Your task to perform on an android device: check storage Image 0: 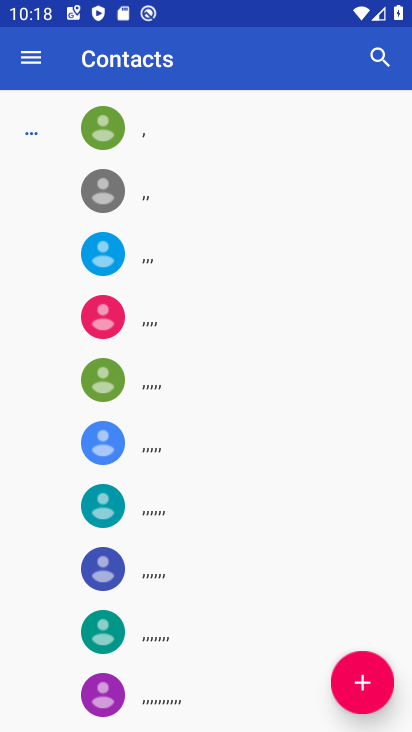
Step 0: press back button
Your task to perform on an android device: check storage Image 1: 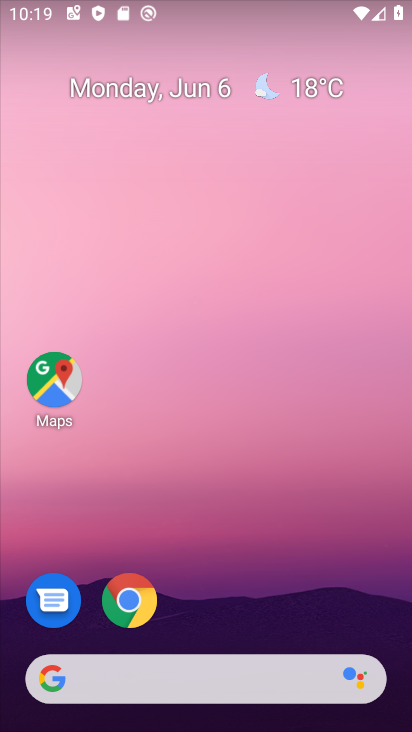
Step 1: drag from (280, 561) to (271, 56)
Your task to perform on an android device: check storage Image 2: 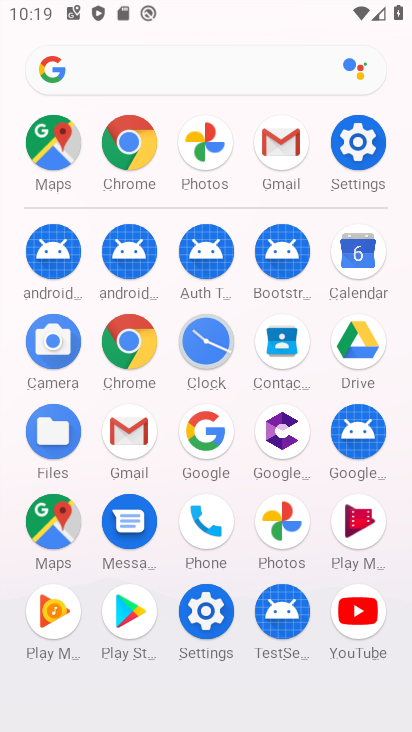
Step 2: click (356, 142)
Your task to perform on an android device: check storage Image 3: 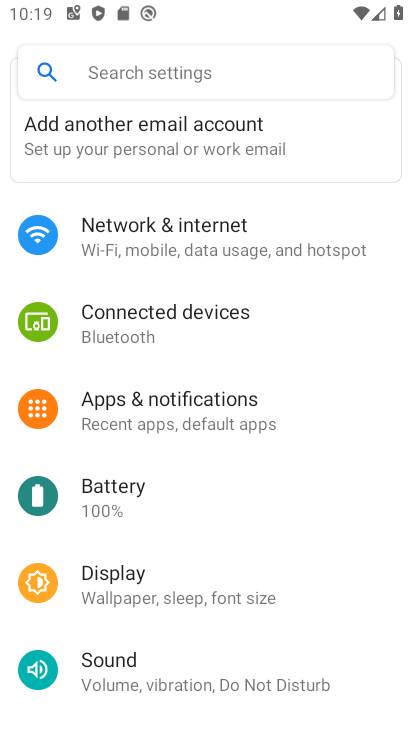
Step 3: drag from (219, 401) to (235, 251)
Your task to perform on an android device: check storage Image 4: 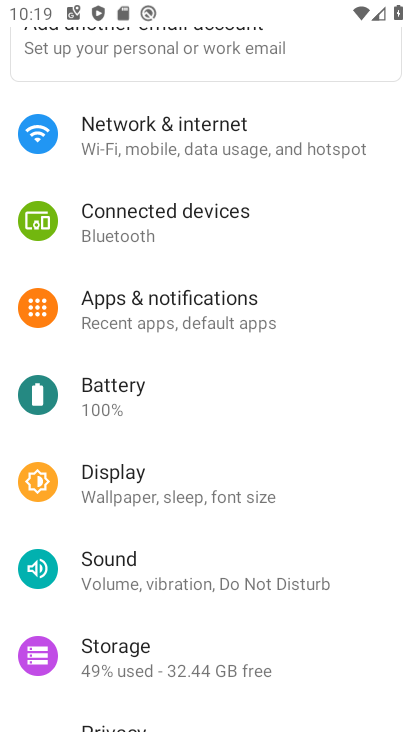
Step 4: click (175, 655)
Your task to perform on an android device: check storage Image 5: 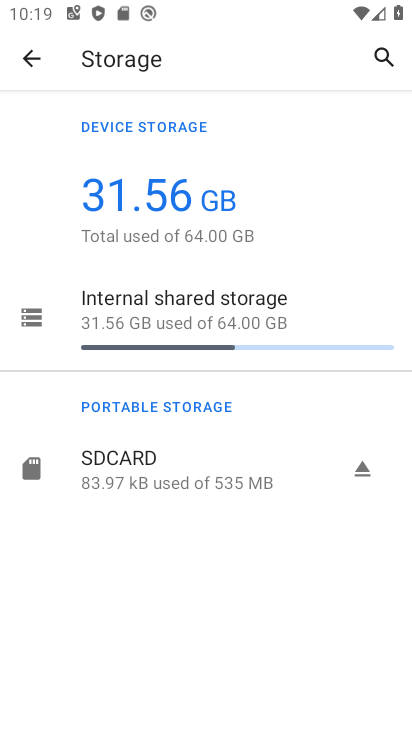
Step 5: task complete